Your task to perform on an android device: turn off notifications settings in the gmail app Image 0: 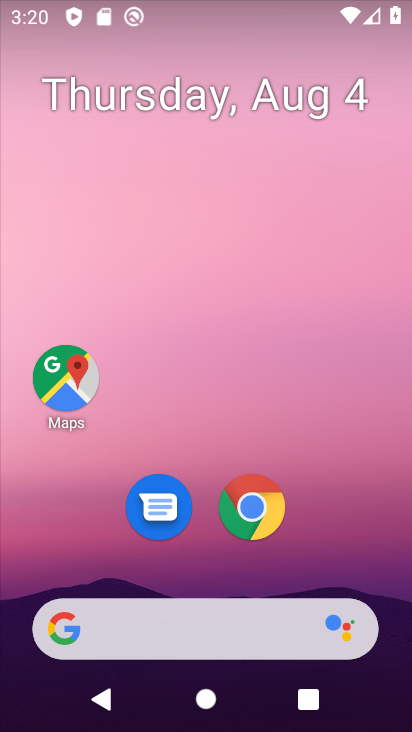
Step 0: drag from (136, 389) to (258, 38)
Your task to perform on an android device: turn off notifications settings in the gmail app Image 1: 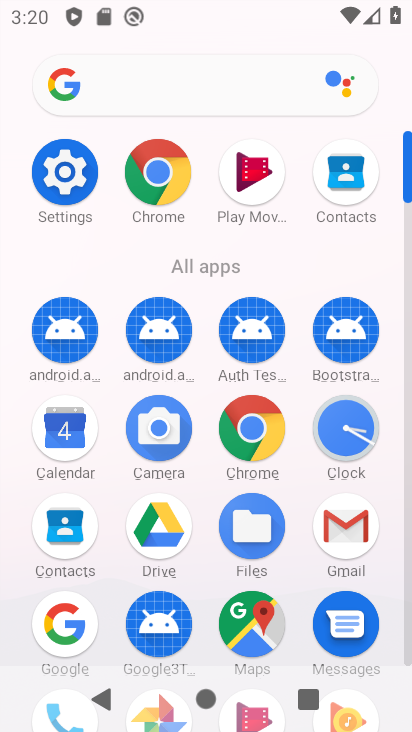
Step 1: drag from (195, 428) to (225, 161)
Your task to perform on an android device: turn off notifications settings in the gmail app Image 2: 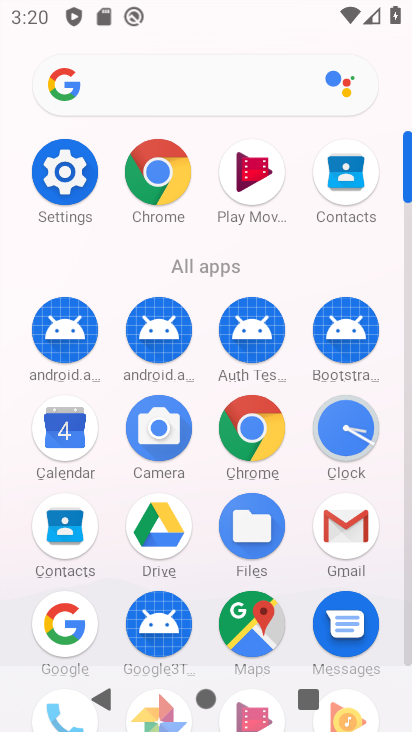
Step 2: drag from (218, 648) to (319, 109)
Your task to perform on an android device: turn off notifications settings in the gmail app Image 3: 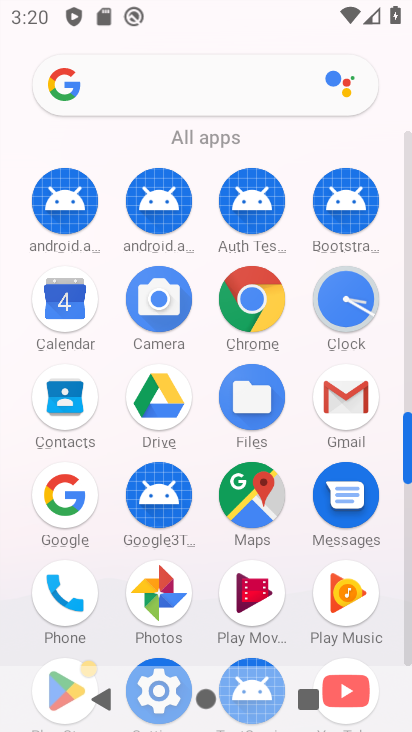
Step 3: click (340, 418)
Your task to perform on an android device: turn off notifications settings in the gmail app Image 4: 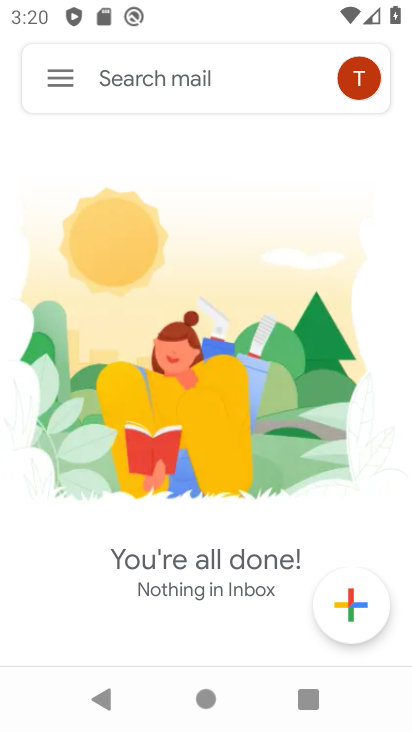
Step 4: click (62, 89)
Your task to perform on an android device: turn off notifications settings in the gmail app Image 5: 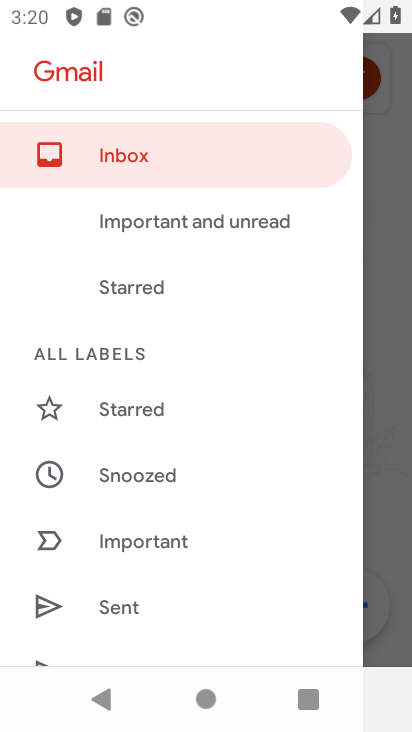
Step 5: drag from (123, 586) to (131, 245)
Your task to perform on an android device: turn off notifications settings in the gmail app Image 6: 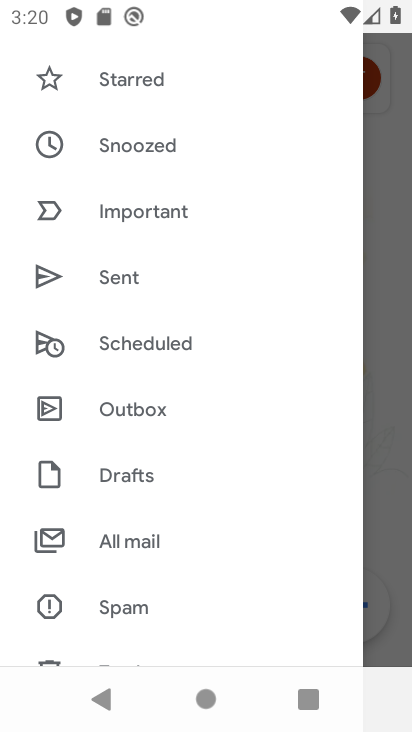
Step 6: drag from (81, 536) to (128, 92)
Your task to perform on an android device: turn off notifications settings in the gmail app Image 7: 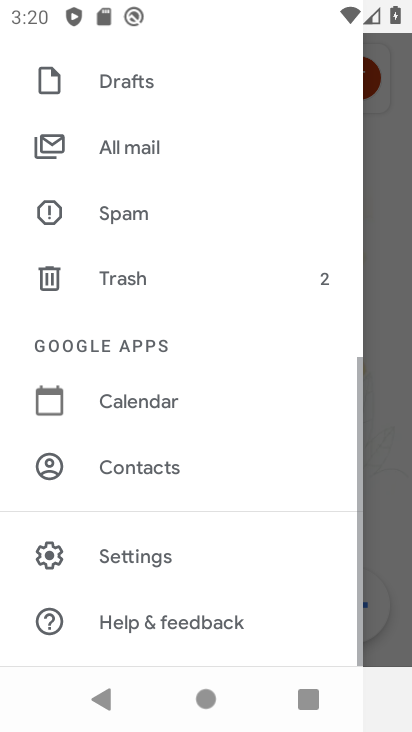
Step 7: click (120, 568)
Your task to perform on an android device: turn off notifications settings in the gmail app Image 8: 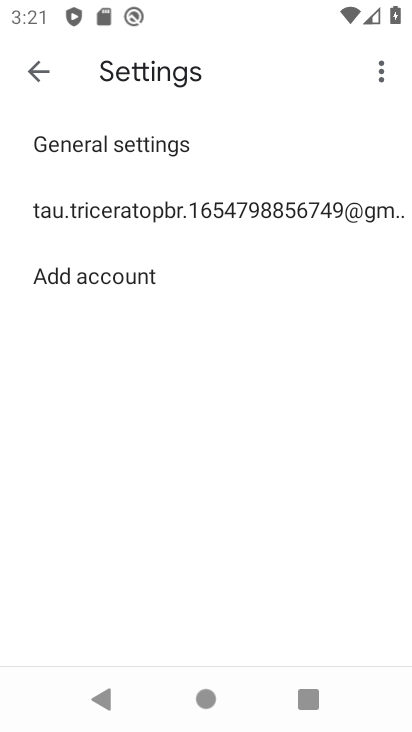
Step 8: click (220, 205)
Your task to perform on an android device: turn off notifications settings in the gmail app Image 9: 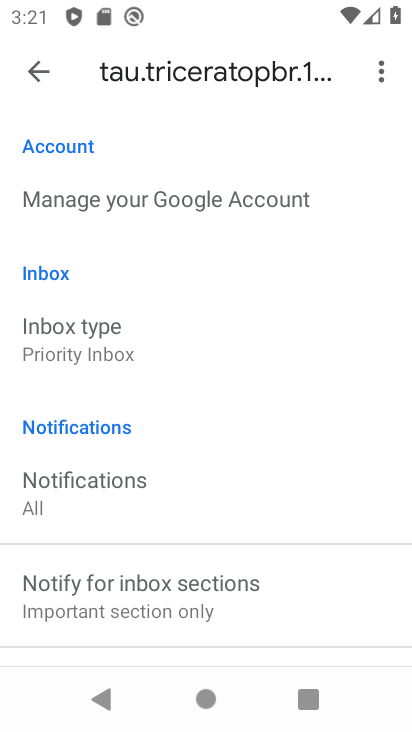
Step 9: drag from (143, 561) to (143, 102)
Your task to perform on an android device: turn off notifications settings in the gmail app Image 10: 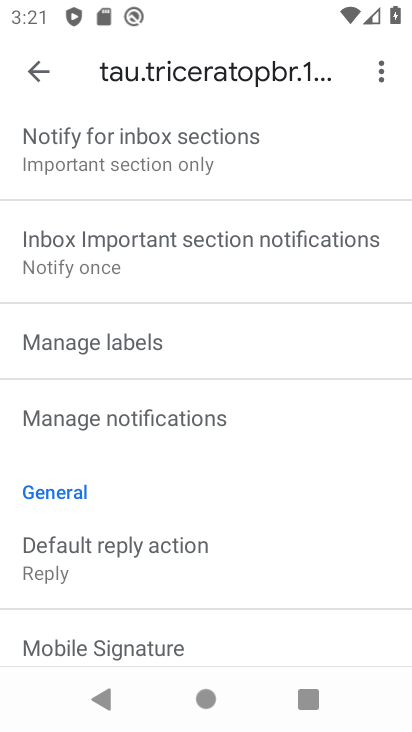
Step 10: drag from (105, 622) to (105, 301)
Your task to perform on an android device: turn off notifications settings in the gmail app Image 11: 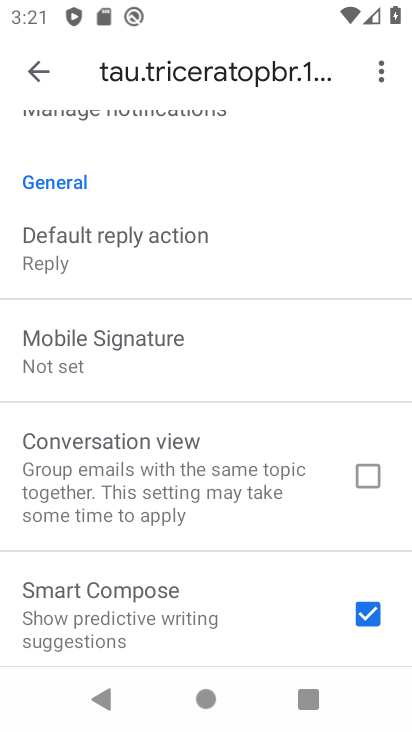
Step 11: drag from (163, 190) to (170, 431)
Your task to perform on an android device: turn off notifications settings in the gmail app Image 12: 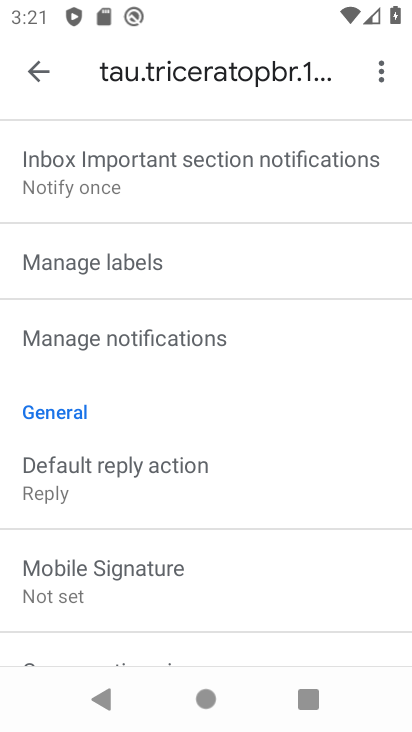
Step 12: drag from (187, 220) to (176, 479)
Your task to perform on an android device: turn off notifications settings in the gmail app Image 13: 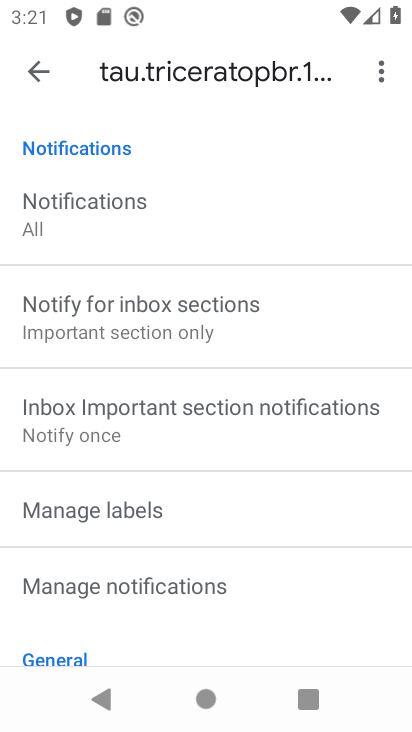
Step 13: click (256, 203)
Your task to perform on an android device: turn off notifications settings in the gmail app Image 14: 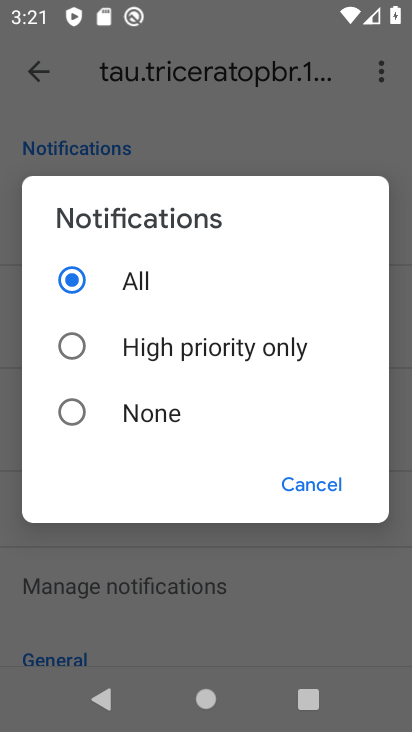
Step 14: task complete